Your task to perform on an android device: show emergency info Image 0: 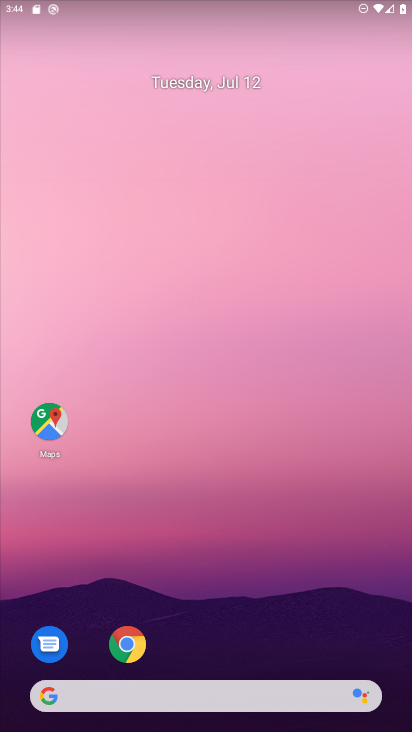
Step 0: drag from (300, 303) to (269, 68)
Your task to perform on an android device: show emergency info Image 1: 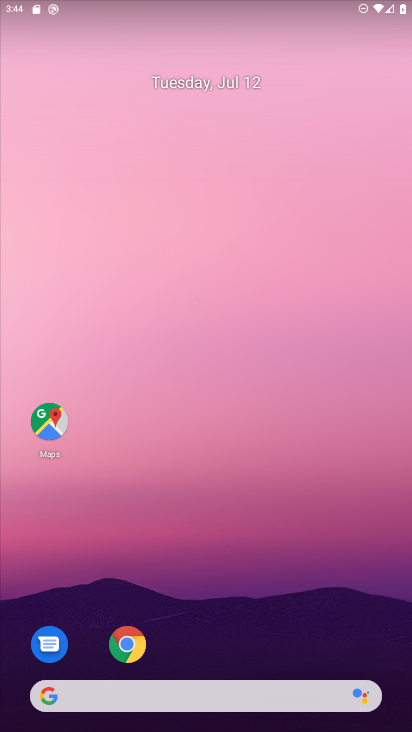
Step 1: drag from (277, 610) to (197, 51)
Your task to perform on an android device: show emergency info Image 2: 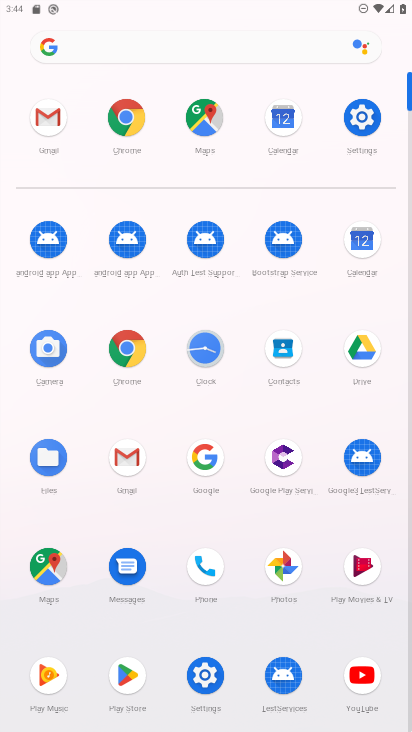
Step 2: click (363, 121)
Your task to perform on an android device: show emergency info Image 3: 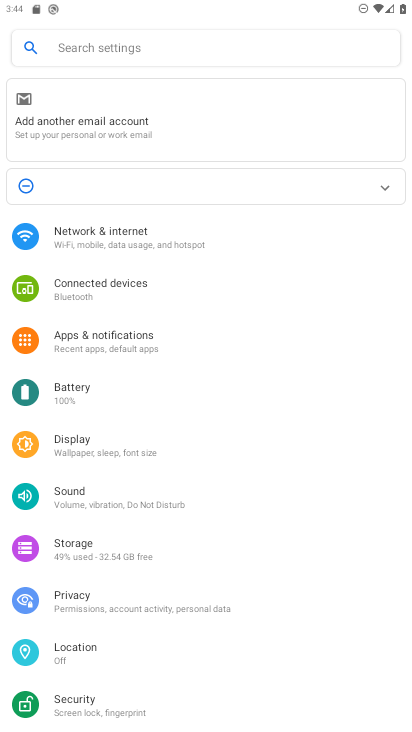
Step 3: drag from (175, 644) to (200, 90)
Your task to perform on an android device: show emergency info Image 4: 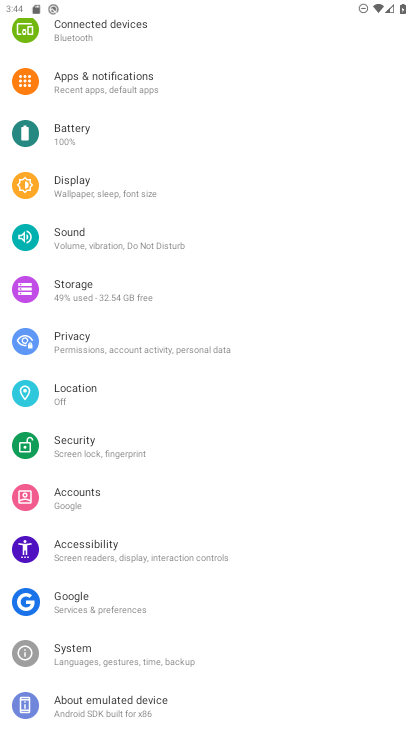
Step 4: click (120, 704)
Your task to perform on an android device: show emergency info Image 5: 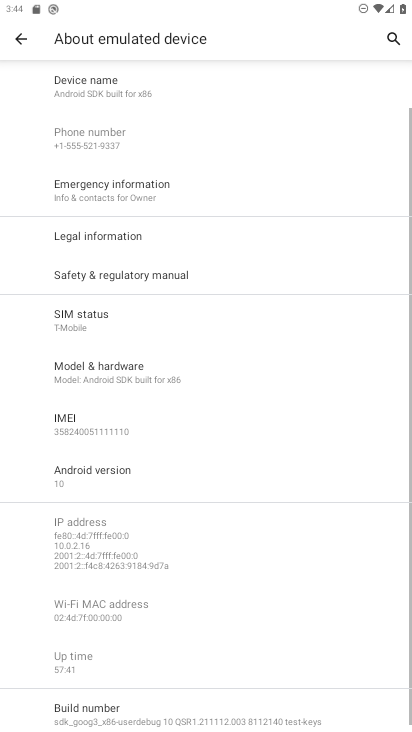
Step 5: click (152, 194)
Your task to perform on an android device: show emergency info Image 6: 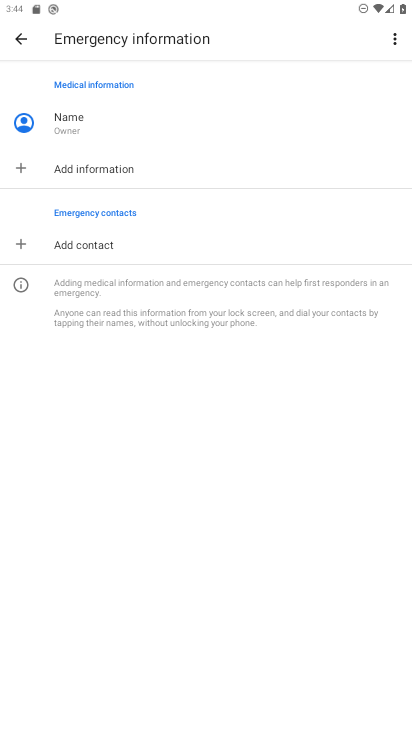
Step 6: task complete